Your task to perform on an android device: check the backup settings in the google photos Image 0: 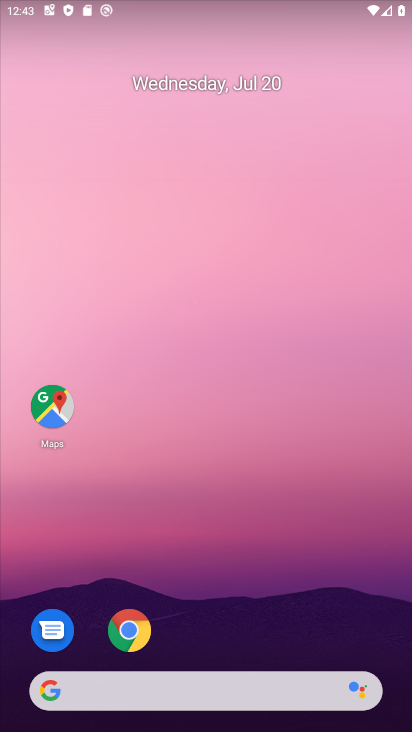
Step 0: drag from (228, 618) to (311, 91)
Your task to perform on an android device: check the backup settings in the google photos Image 1: 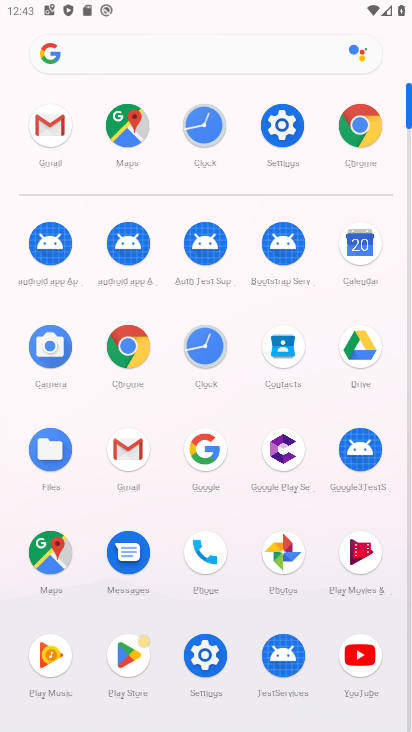
Step 1: click (281, 553)
Your task to perform on an android device: check the backup settings in the google photos Image 2: 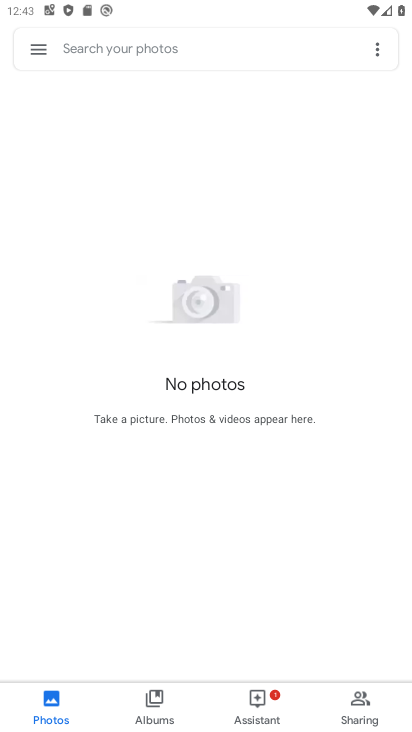
Step 2: click (36, 45)
Your task to perform on an android device: check the backup settings in the google photos Image 3: 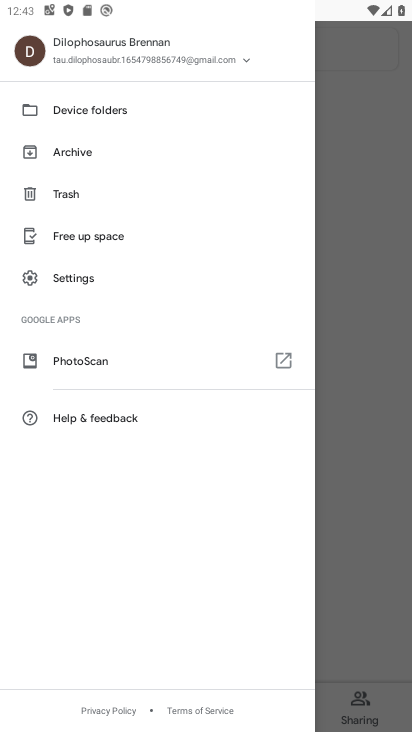
Step 3: click (79, 281)
Your task to perform on an android device: check the backup settings in the google photos Image 4: 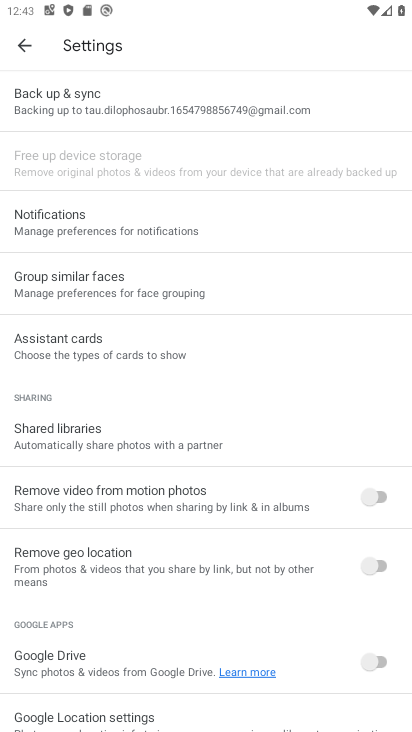
Step 4: click (178, 104)
Your task to perform on an android device: check the backup settings in the google photos Image 5: 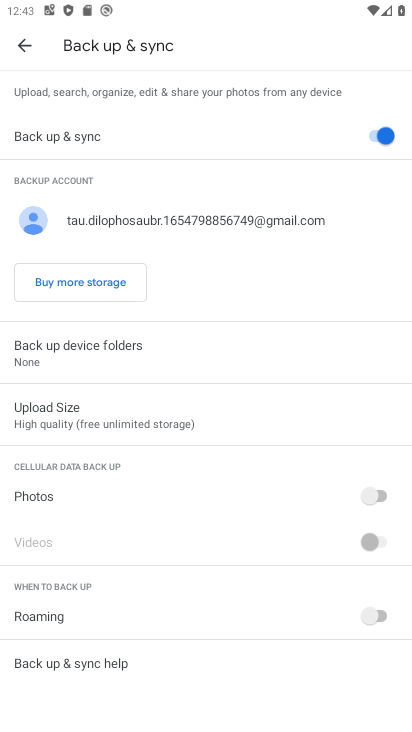
Step 5: click (377, 137)
Your task to perform on an android device: check the backup settings in the google photos Image 6: 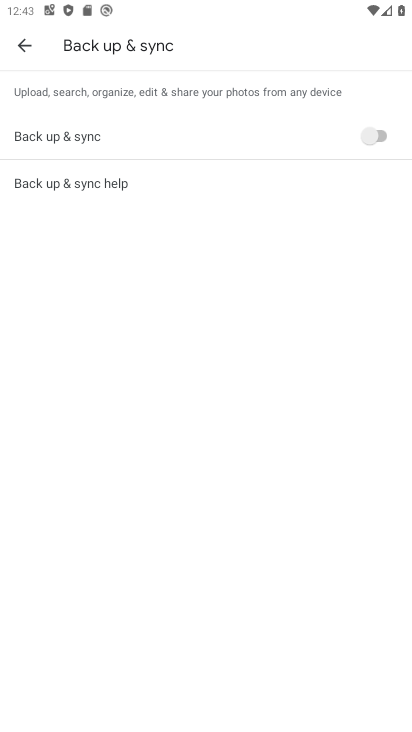
Step 6: task complete